Your task to perform on an android device: What's the weather going to be tomorrow? Image 0: 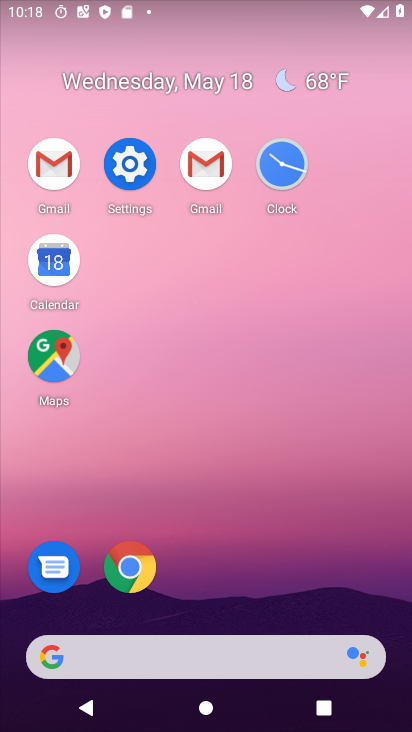
Step 0: drag from (264, 603) to (264, 88)
Your task to perform on an android device: What's the weather going to be tomorrow? Image 1: 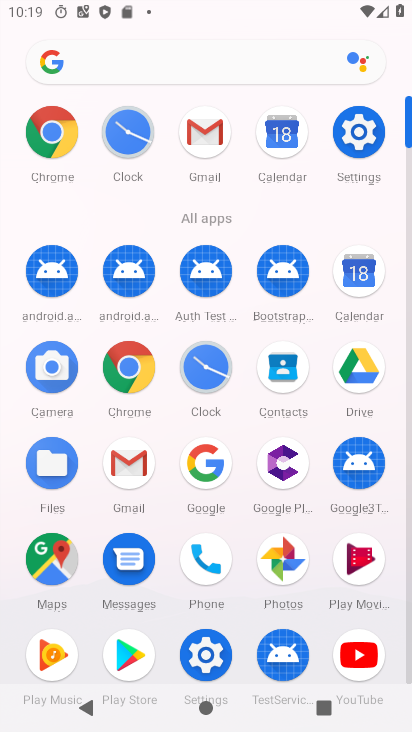
Step 1: click (218, 475)
Your task to perform on an android device: What's the weather going to be tomorrow? Image 2: 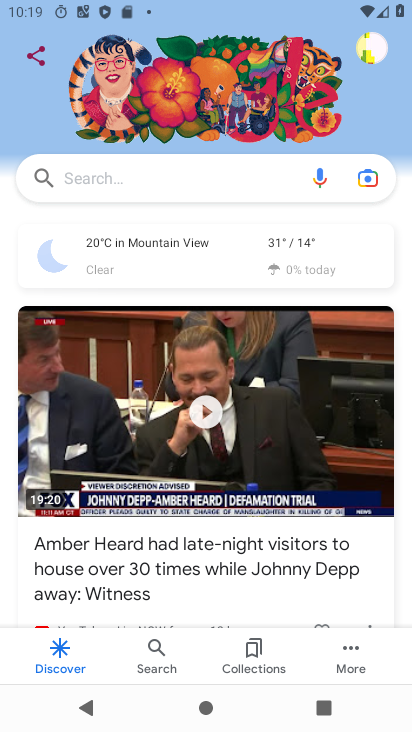
Step 2: click (107, 253)
Your task to perform on an android device: What's the weather going to be tomorrow? Image 3: 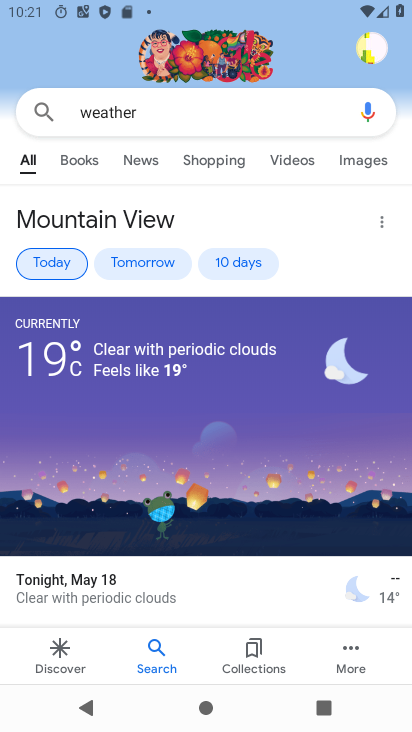
Step 3: click (154, 264)
Your task to perform on an android device: What's the weather going to be tomorrow? Image 4: 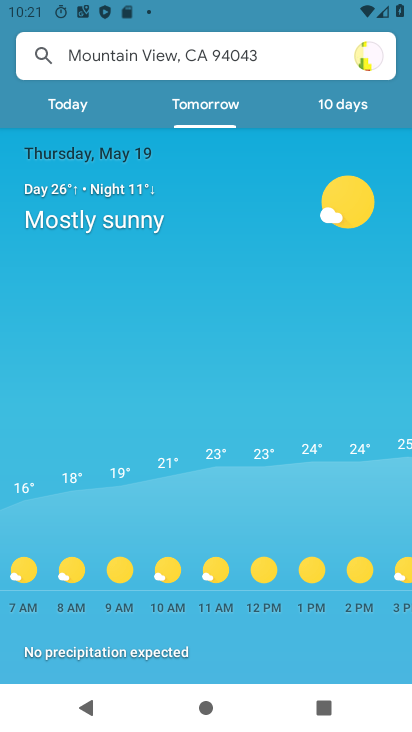
Step 4: task complete